Your task to perform on an android device: clear history in the chrome app Image 0: 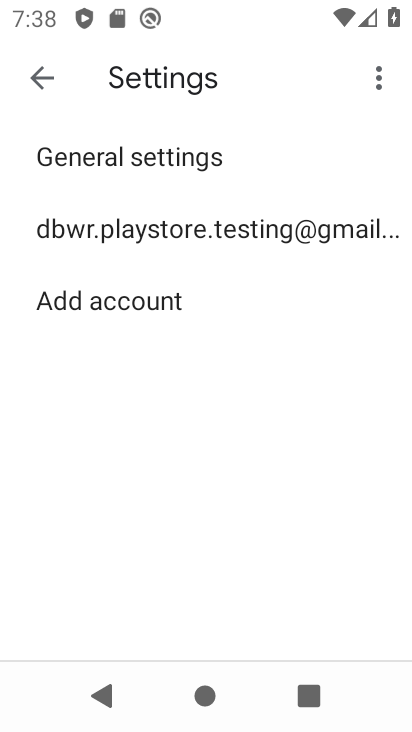
Step 0: press home button
Your task to perform on an android device: clear history in the chrome app Image 1: 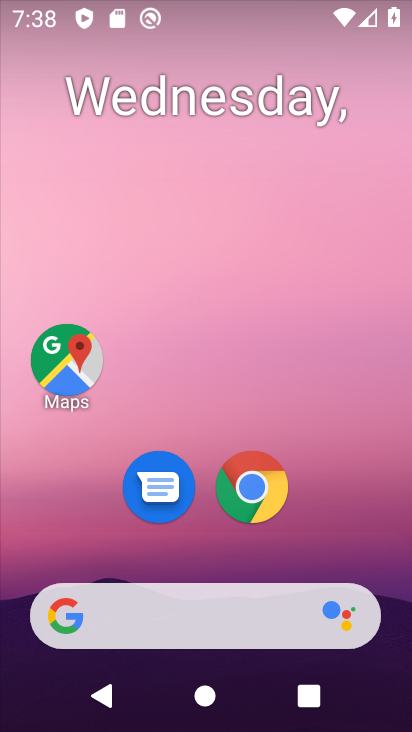
Step 1: drag from (381, 531) to (379, 107)
Your task to perform on an android device: clear history in the chrome app Image 2: 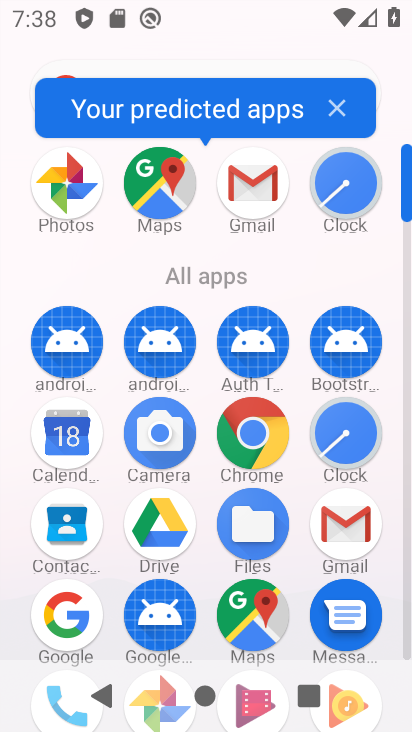
Step 2: click (277, 449)
Your task to perform on an android device: clear history in the chrome app Image 3: 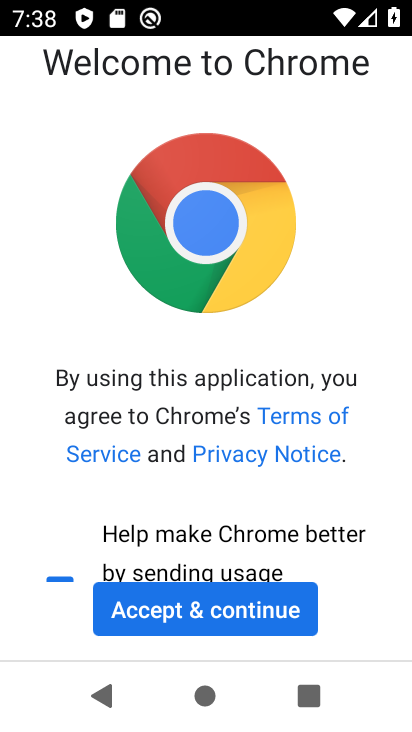
Step 3: click (273, 613)
Your task to perform on an android device: clear history in the chrome app Image 4: 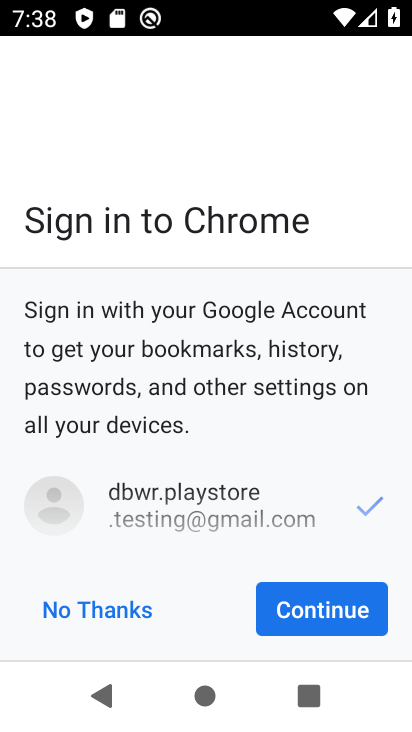
Step 4: click (273, 613)
Your task to perform on an android device: clear history in the chrome app Image 5: 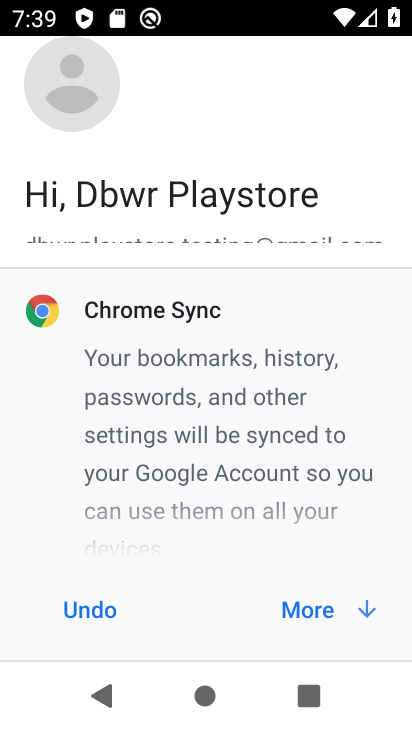
Step 5: click (289, 609)
Your task to perform on an android device: clear history in the chrome app Image 6: 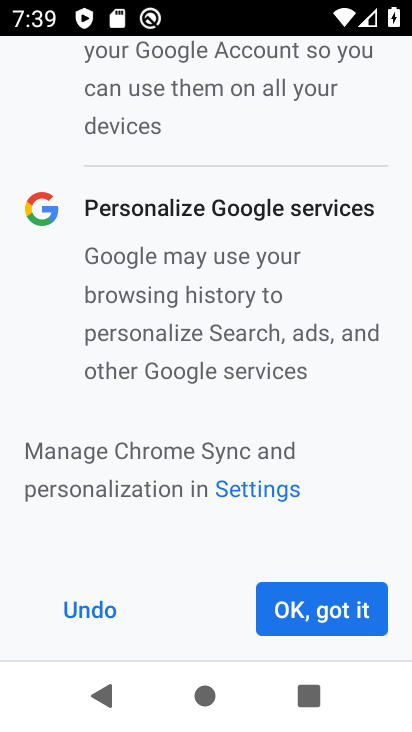
Step 6: click (289, 609)
Your task to perform on an android device: clear history in the chrome app Image 7: 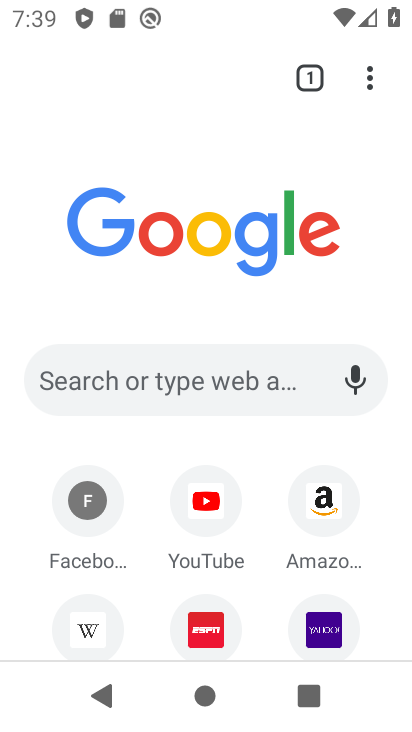
Step 7: click (368, 80)
Your task to perform on an android device: clear history in the chrome app Image 8: 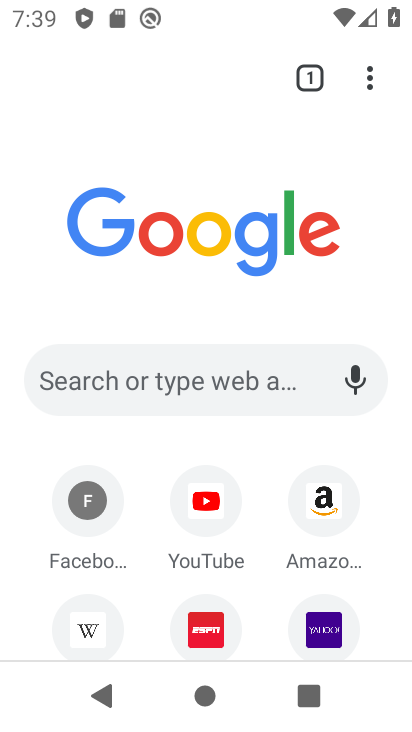
Step 8: click (368, 80)
Your task to perform on an android device: clear history in the chrome app Image 9: 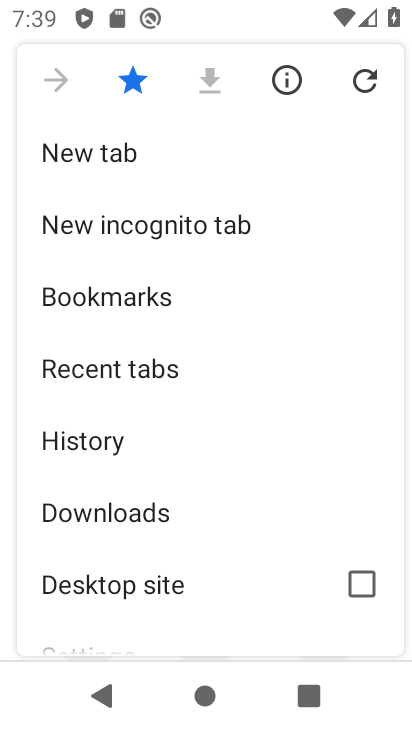
Step 9: click (152, 448)
Your task to perform on an android device: clear history in the chrome app Image 10: 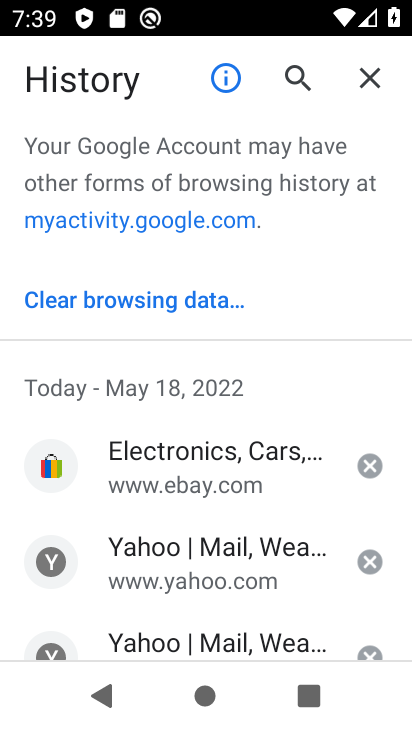
Step 10: click (174, 308)
Your task to perform on an android device: clear history in the chrome app Image 11: 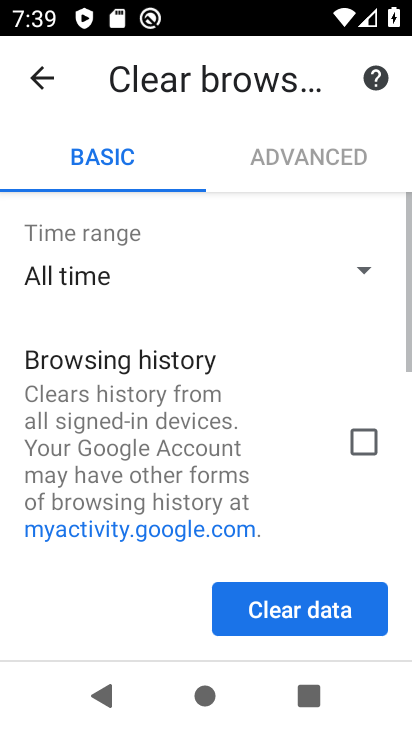
Step 11: click (294, 602)
Your task to perform on an android device: clear history in the chrome app Image 12: 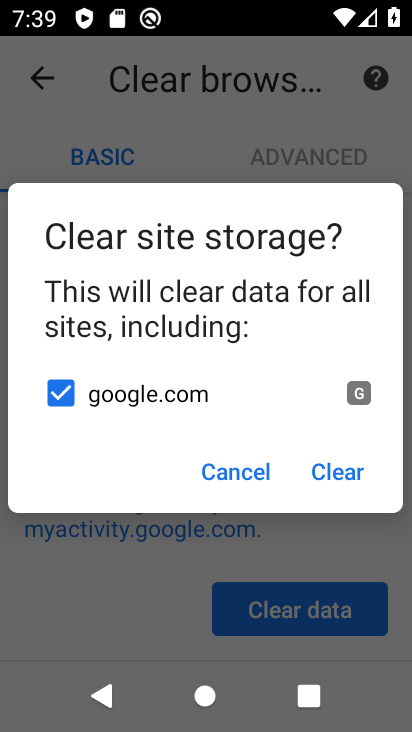
Step 12: click (330, 490)
Your task to perform on an android device: clear history in the chrome app Image 13: 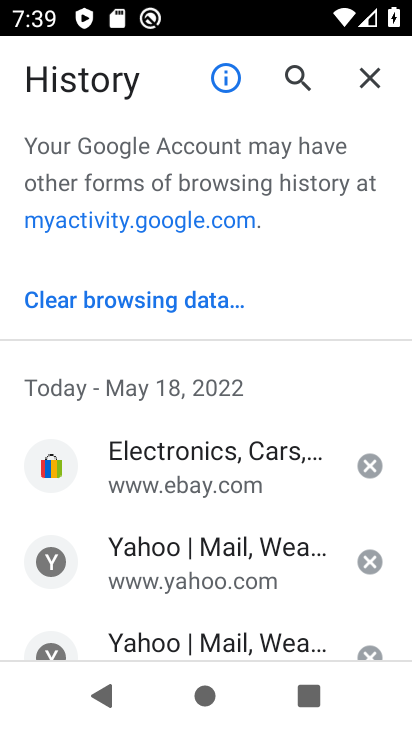
Step 13: click (204, 306)
Your task to perform on an android device: clear history in the chrome app Image 14: 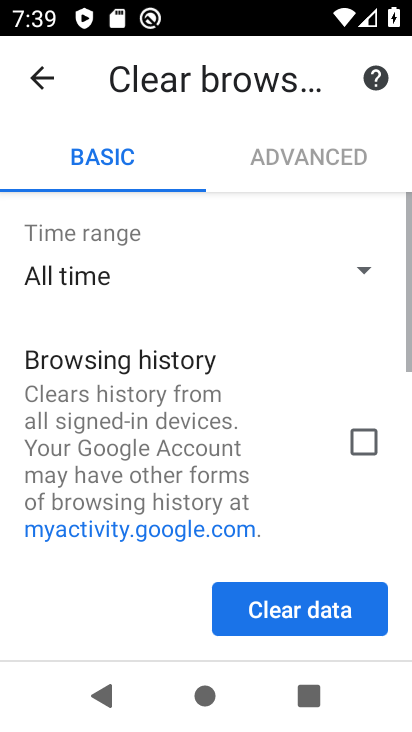
Step 14: click (372, 448)
Your task to perform on an android device: clear history in the chrome app Image 15: 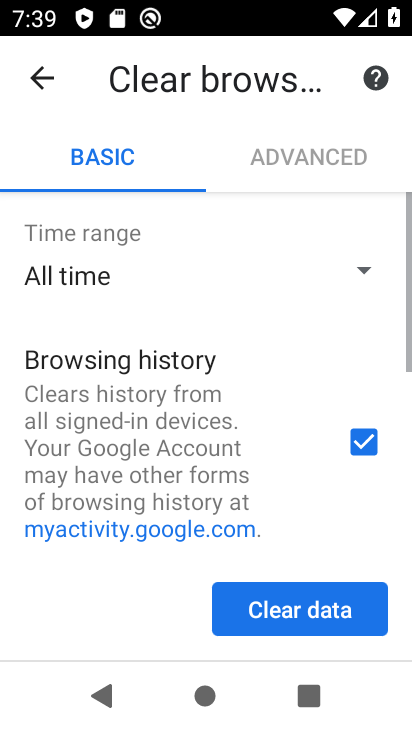
Step 15: click (346, 594)
Your task to perform on an android device: clear history in the chrome app Image 16: 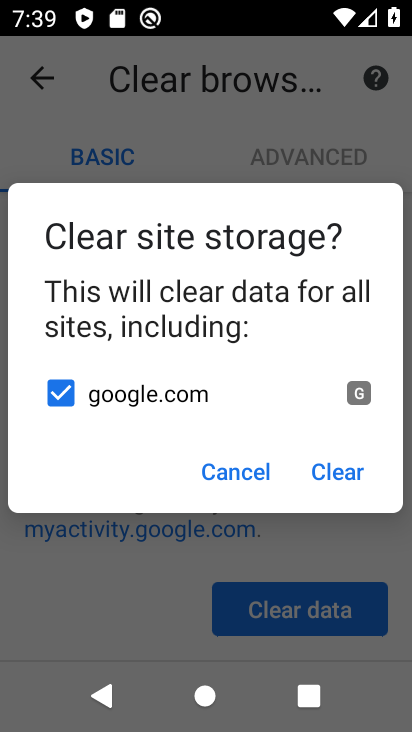
Step 16: click (308, 459)
Your task to perform on an android device: clear history in the chrome app Image 17: 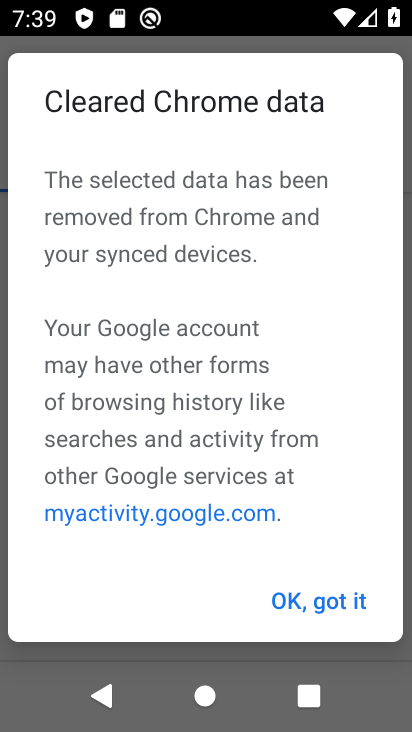
Step 17: click (346, 599)
Your task to perform on an android device: clear history in the chrome app Image 18: 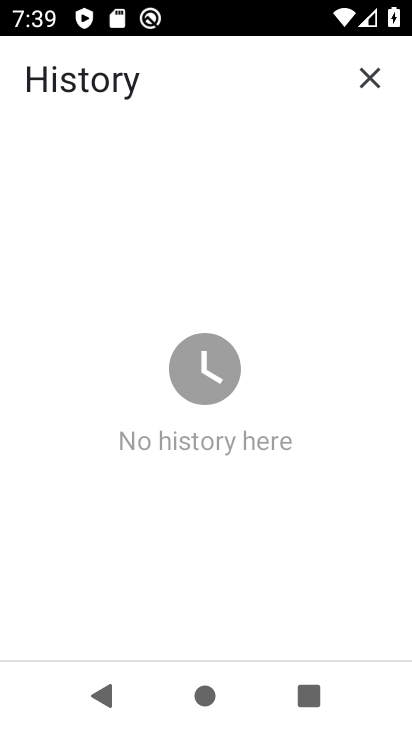
Step 18: task complete